Your task to perform on an android device: Go to settings Image 0: 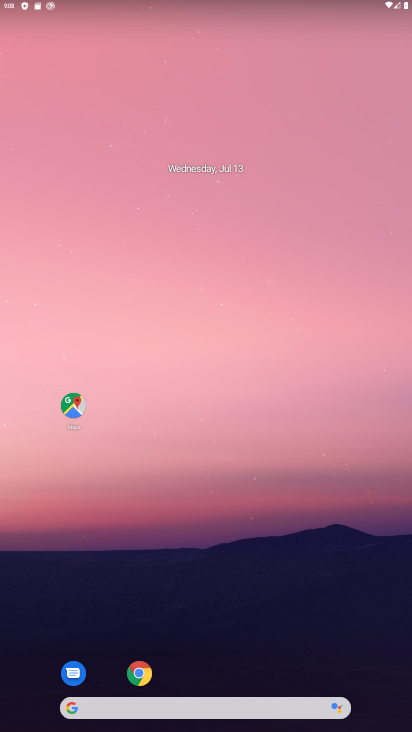
Step 0: drag from (216, 660) to (208, 116)
Your task to perform on an android device: Go to settings Image 1: 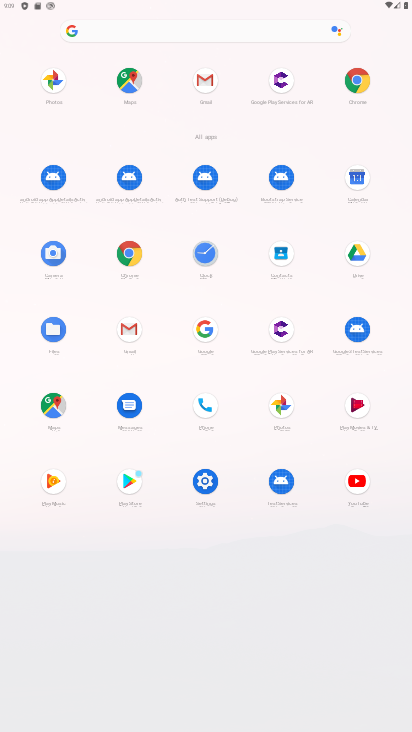
Step 1: click (195, 479)
Your task to perform on an android device: Go to settings Image 2: 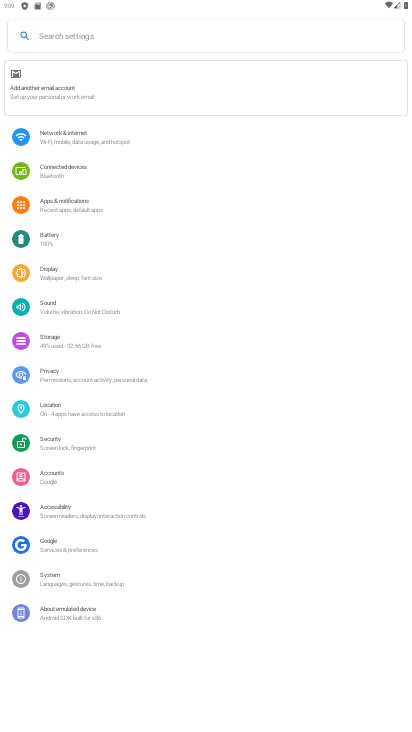
Step 2: task complete